Your task to perform on an android device: Go to Amazon Image 0: 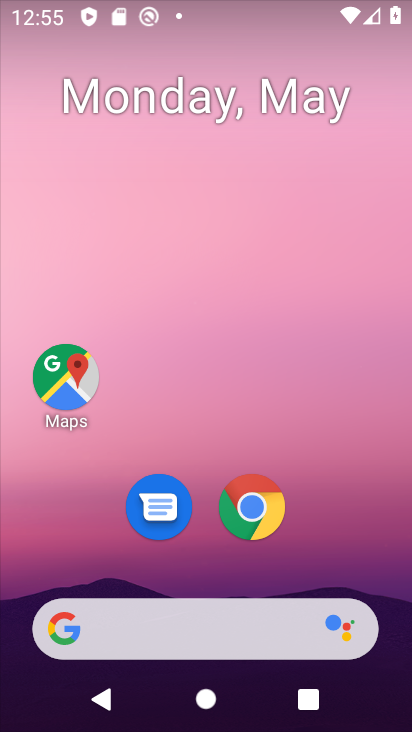
Step 0: click (262, 496)
Your task to perform on an android device: Go to Amazon Image 1: 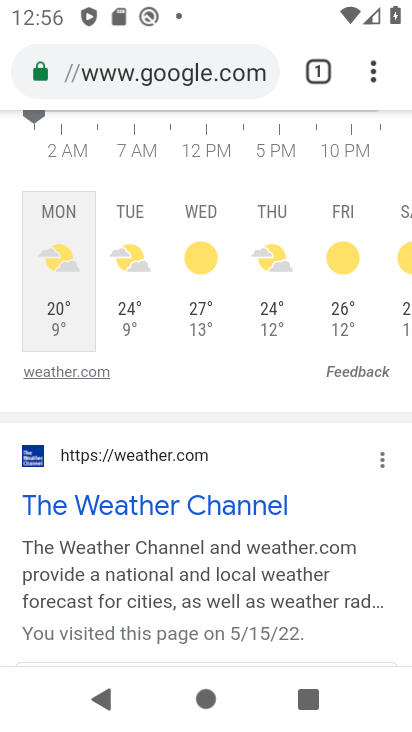
Step 1: drag from (337, 222) to (233, 598)
Your task to perform on an android device: Go to Amazon Image 2: 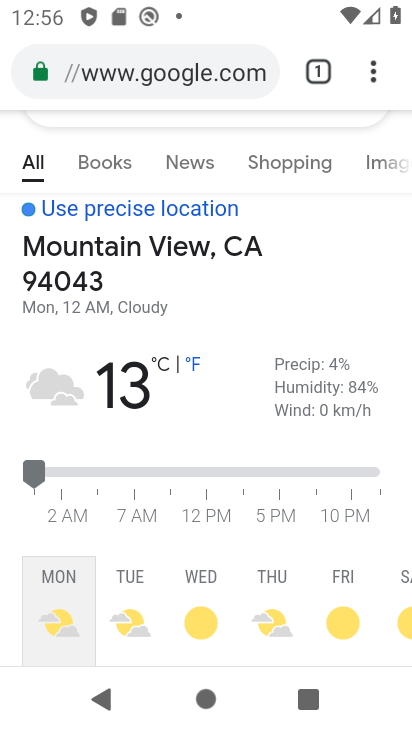
Step 2: drag from (225, 153) to (205, 495)
Your task to perform on an android device: Go to Amazon Image 3: 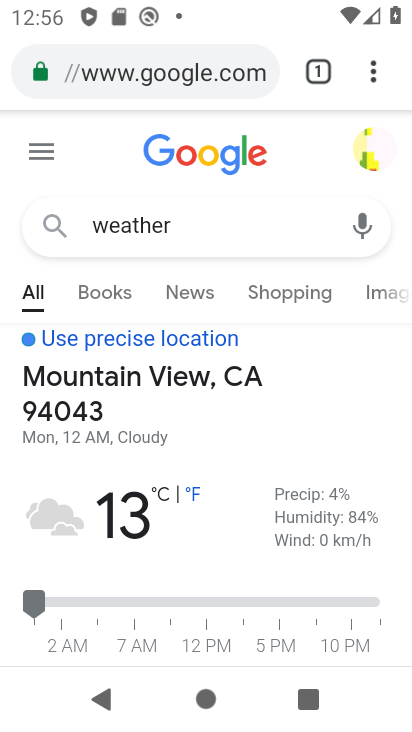
Step 3: click (206, 239)
Your task to perform on an android device: Go to Amazon Image 4: 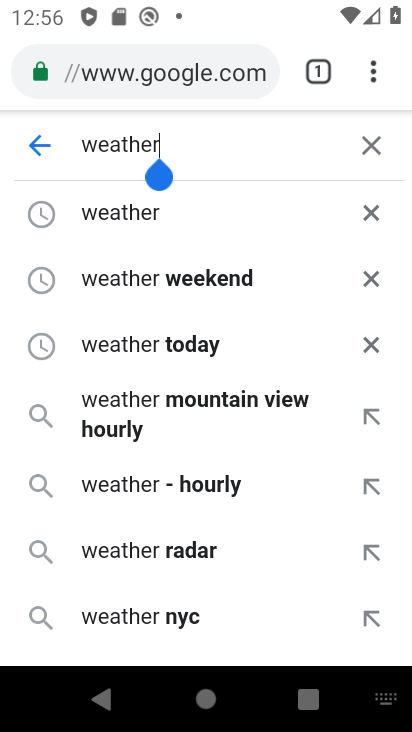
Step 4: click (361, 148)
Your task to perform on an android device: Go to Amazon Image 5: 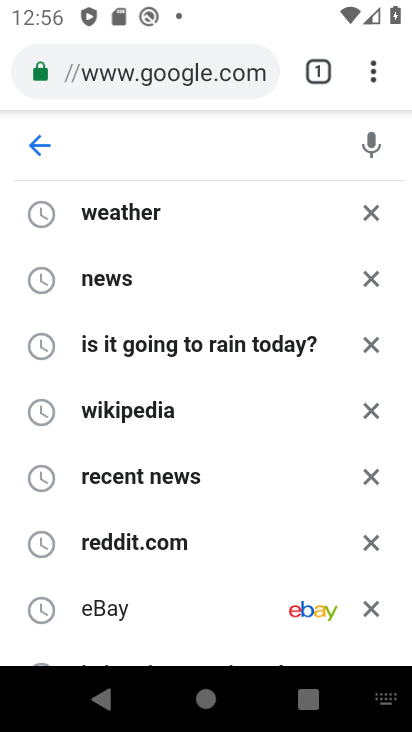
Step 5: type "amazon"
Your task to perform on an android device: Go to Amazon Image 6: 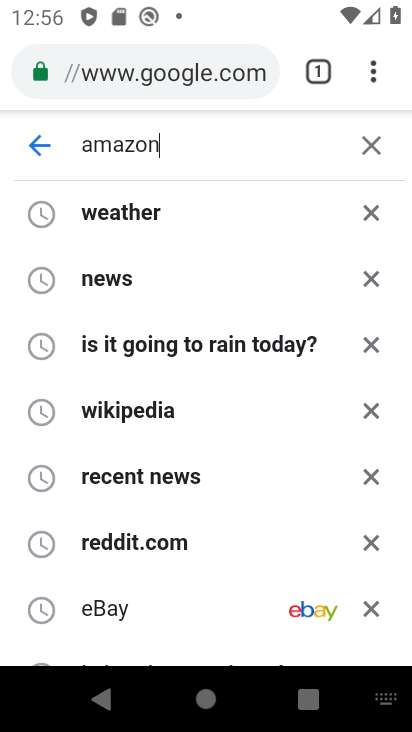
Step 6: type ""
Your task to perform on an android device: Go to Amazon Image 7: 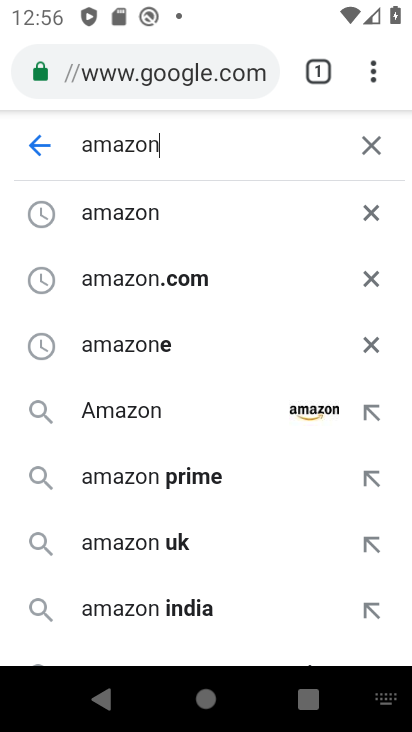
Step 7: click (190, 201)
Your task to perform on an android device: Go to Amazon Image 8: 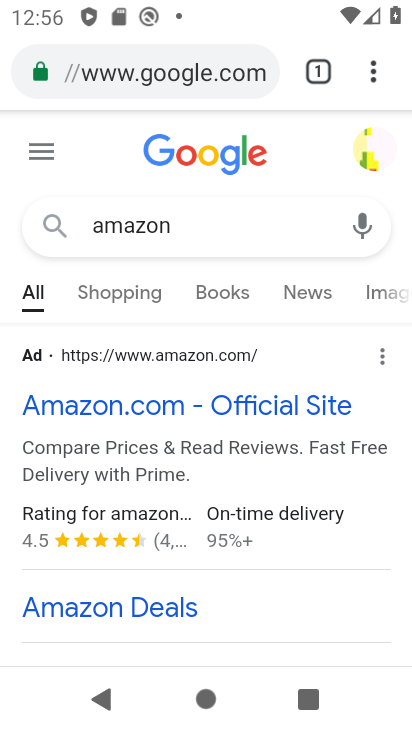
Step 8: drag from (218, 553) to (269, 78)
Your task to perform on an android device: Go to Amazon Image 9: 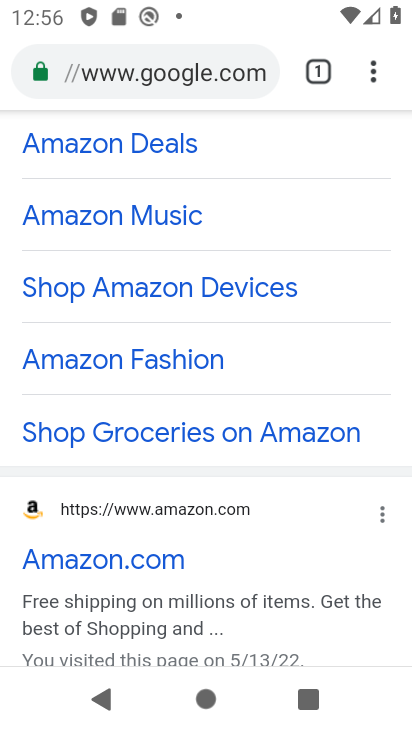
Step 9: click (94, 572)
Your task to perform on an android device: Go to Amazon Image 10: 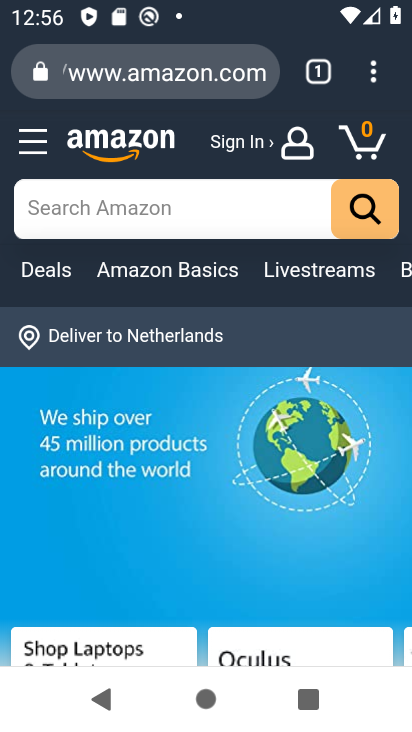
Step 10: task complete